Your task to perform on an android device: turn on priority inbox in the gmail app Image 0: 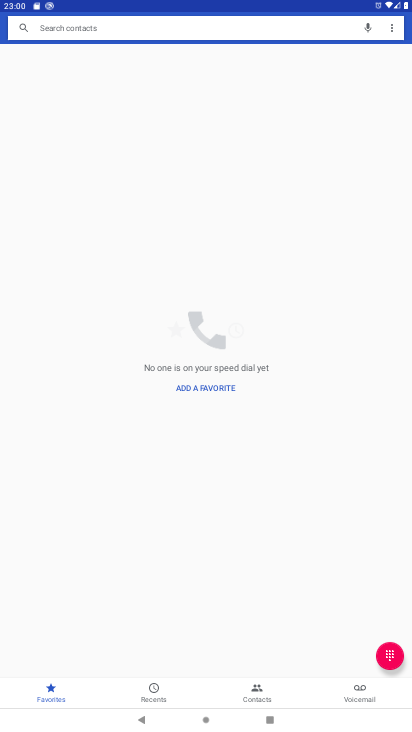
Step 0: press home button
Your task to perform on an android device: turn on priority inbox in the gmail app Image 1: 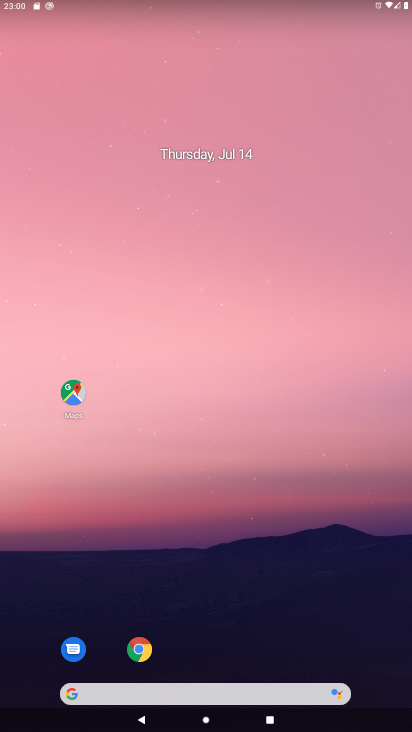
Step 1: drag from (105, 710) to (214, 133)
Your task to perform on an android device: turn on priority inbox in the gmail app Image 2: 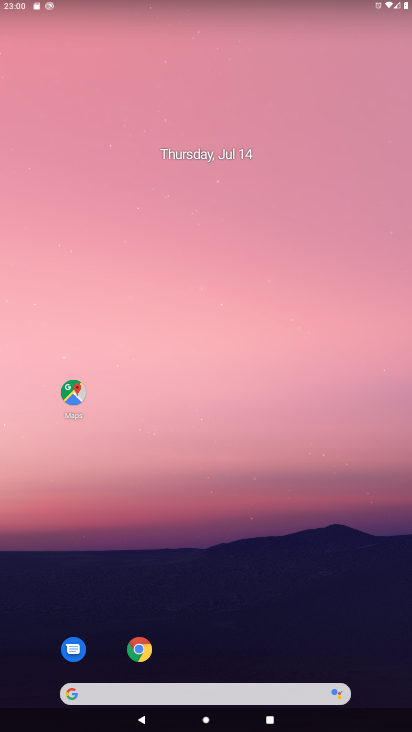
Step 2: drag from (180, 710) to (295, 11)
Your task to perform on an android device: turn on priority inbox in the gmail app Image 3: 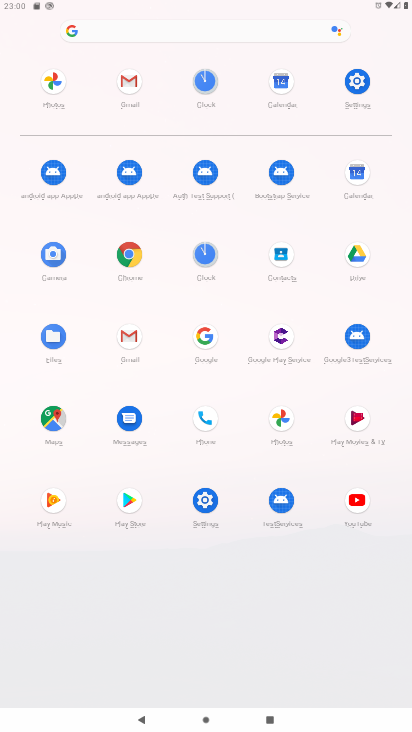
Step 3: click (128, 78)
Your task to perform on an android device: turn on priority inbox in the gmail app Image 4: 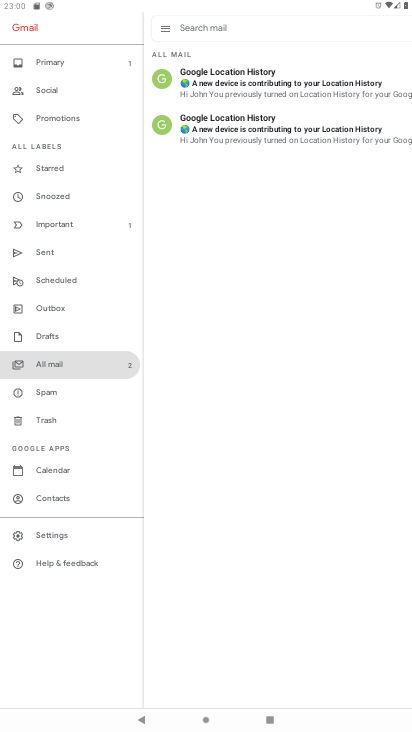
Step 4: click (67, 528)
Your task to perform on an android device: turn on priority inbox in the gmail app Image 5: 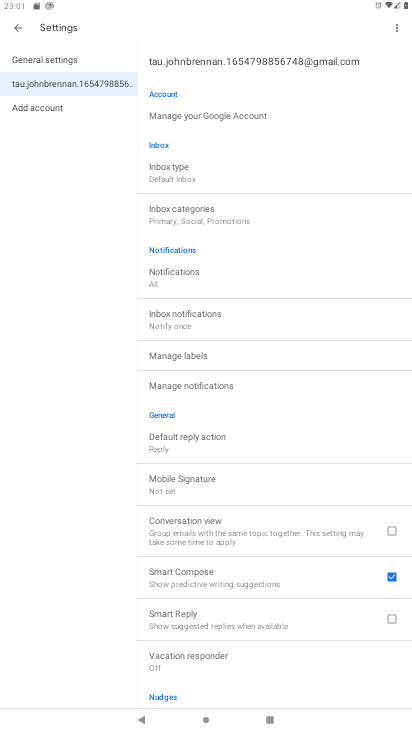
Step 5: click (187, 172)
Your task to perform on an android device: turn on priority inbox in the gmail app Image 6: 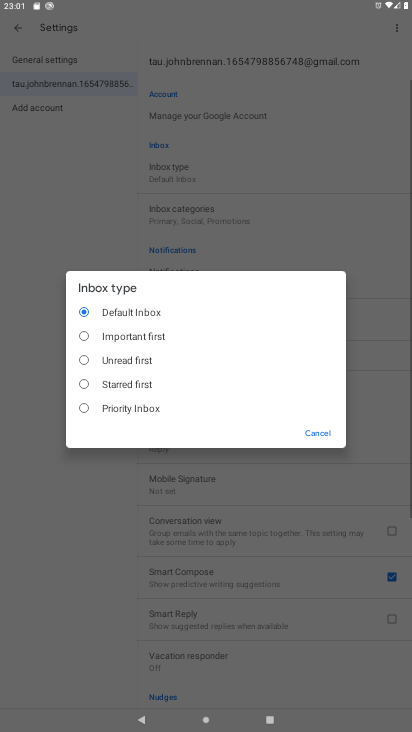
Step 6: click (122, 406)
Your task to perform on an android device: turn on priority inbox in the gmail app Image 7: 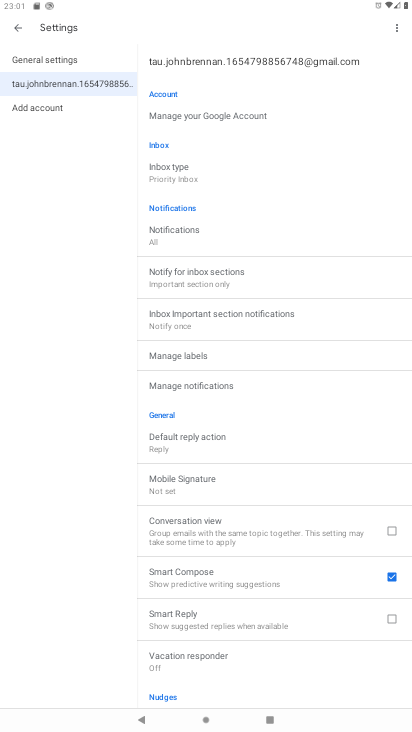
Step 7: task complete